Your task to perform on an android device: change the clock display to show seconds Image 0: 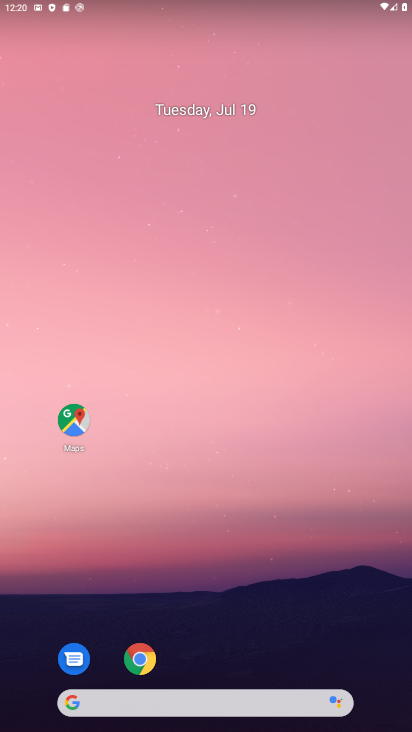
Step 0: drag from (239, 704) to (208, 148)
Your task to perform on an android device: change the clock display to show seconds Image 1: 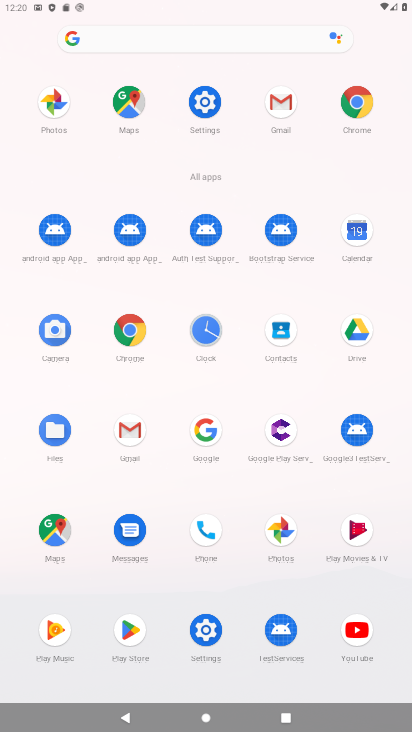
Step 1: click (223, 325)
Your task to perform on an android device: change the clock display to show seconds Image 2: 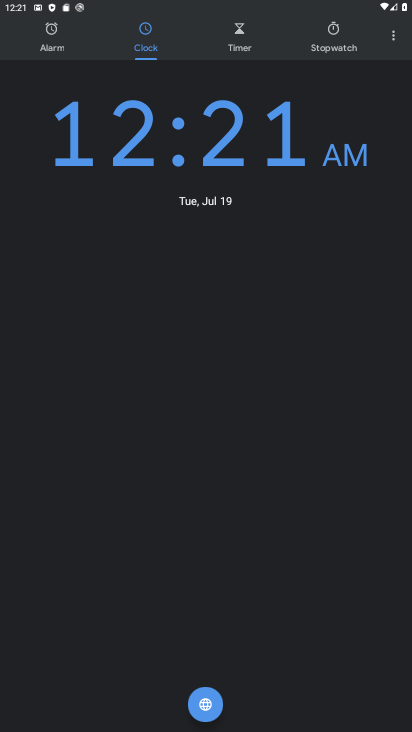
Step 2: click (393, 36)
Your task to perform on an android device: change the clock display to show seconds Image 3: 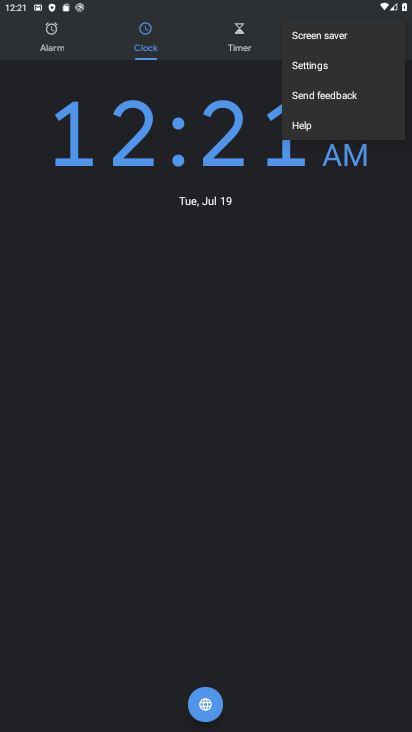
Step 3: click (339, 67)
Your task to perform on an android device: change the clock display to show seconds Image 4: 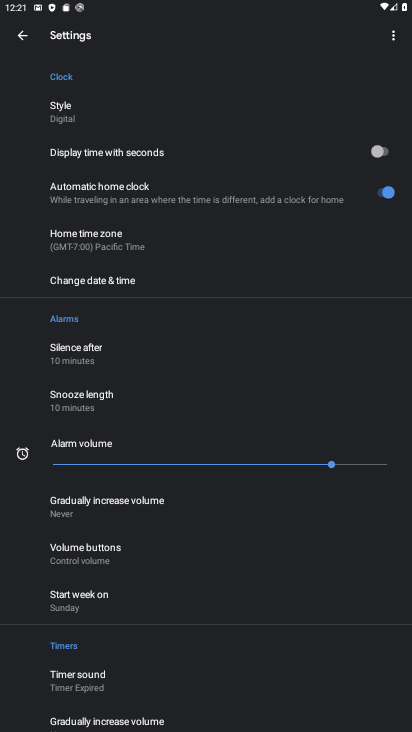
Step 4: click (377, 147)
Your task to perform on an android device: change the clock display to show seconds Image 5: 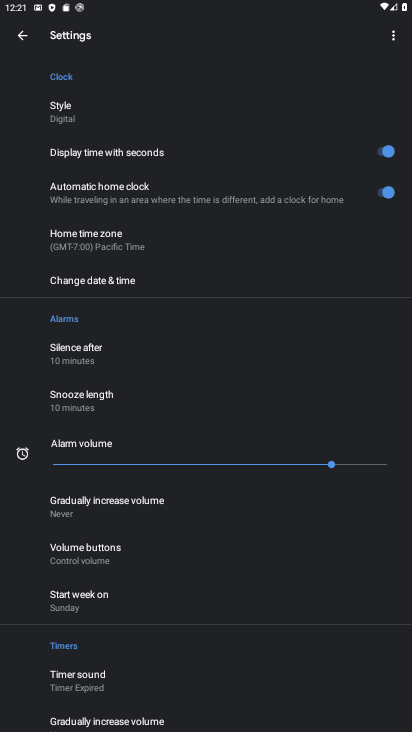
Step 5: task complete